Your task to perform on an android device: turn on translation in the chrome app Image 0: 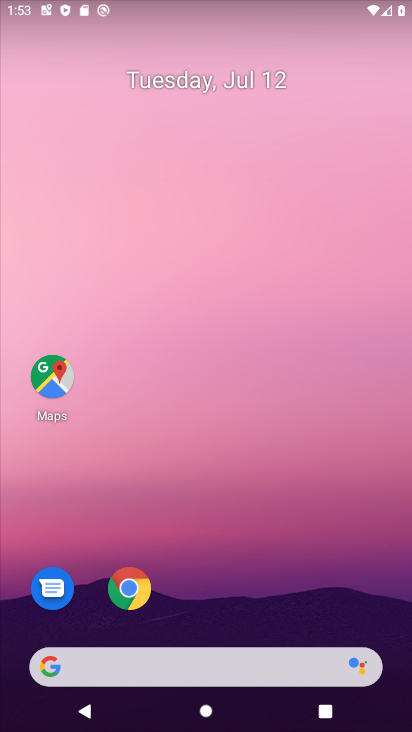
Step 0: click (139, 588)
Your task to perform on an android device: turn on translation in the chrome app Image 1: 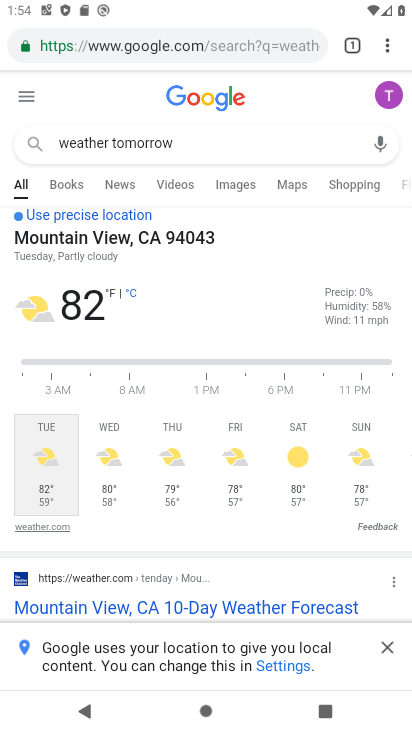
Step 1: drag from (386, 47) to (256, 505)
Your task to perform on an android device: turn on translation in the chrome app Image 2: 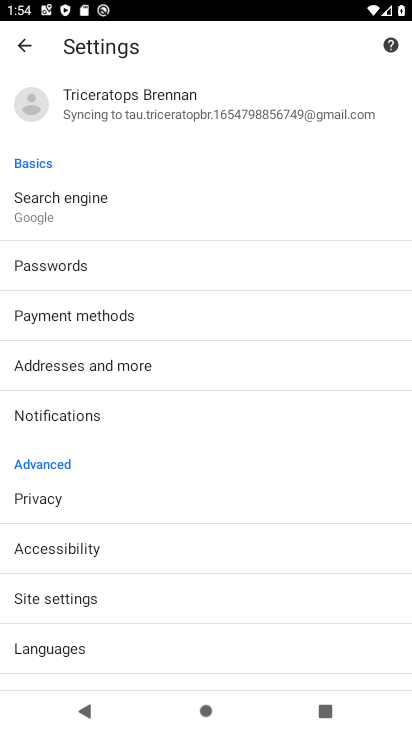
Step 2: click (80, 641)
Your task to perform on an android device: turn on translation in the chrome app Image 3: 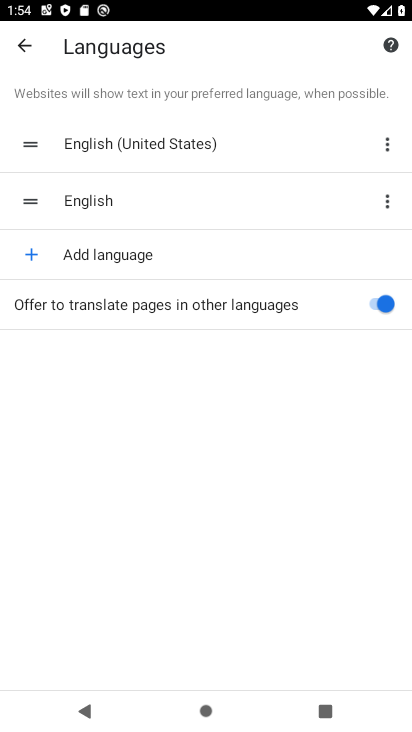
Step 3: task complete